Your task to perform on an android device: Open internet settings Image 0: 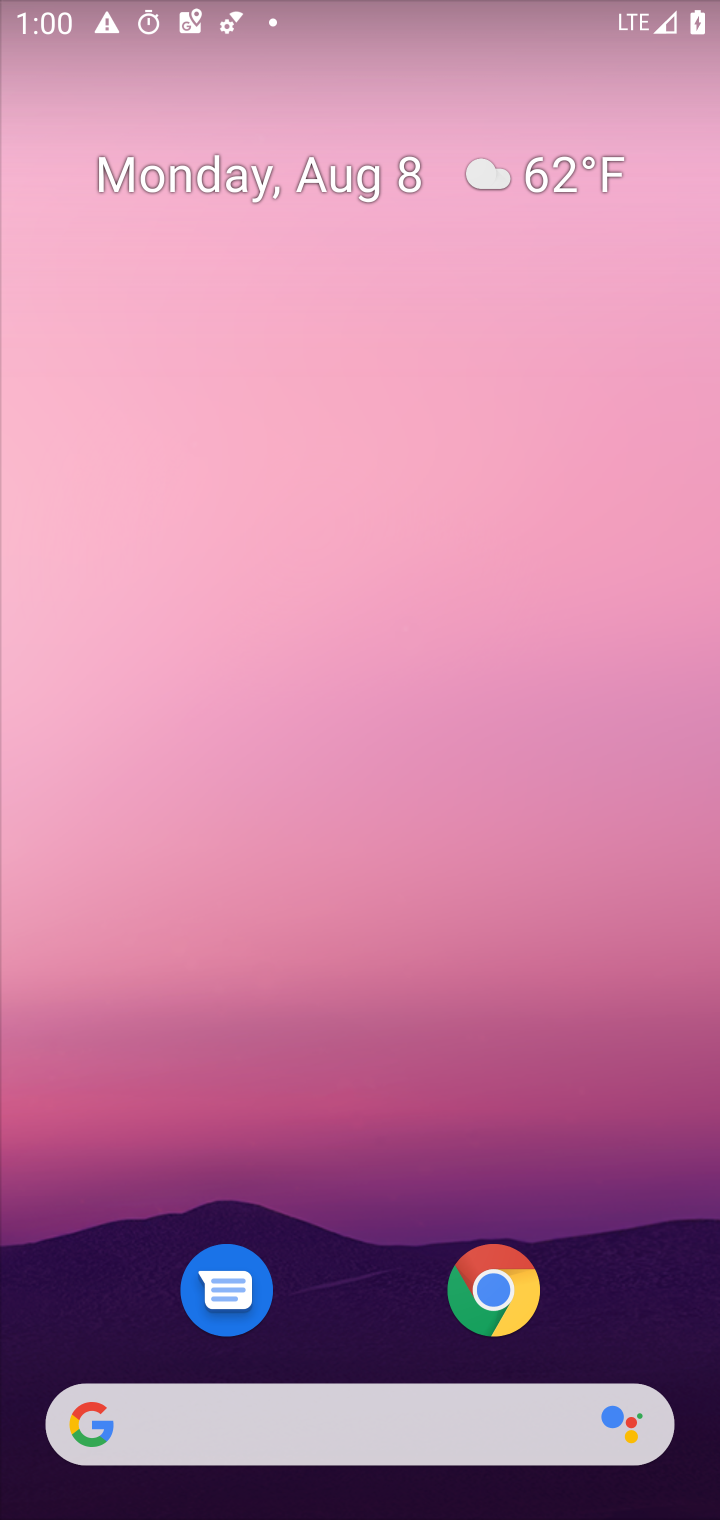
Step 0: drag from (332, 1312) to (375, 740)
Your task to perform on an android device: Open internet settings Image 1: 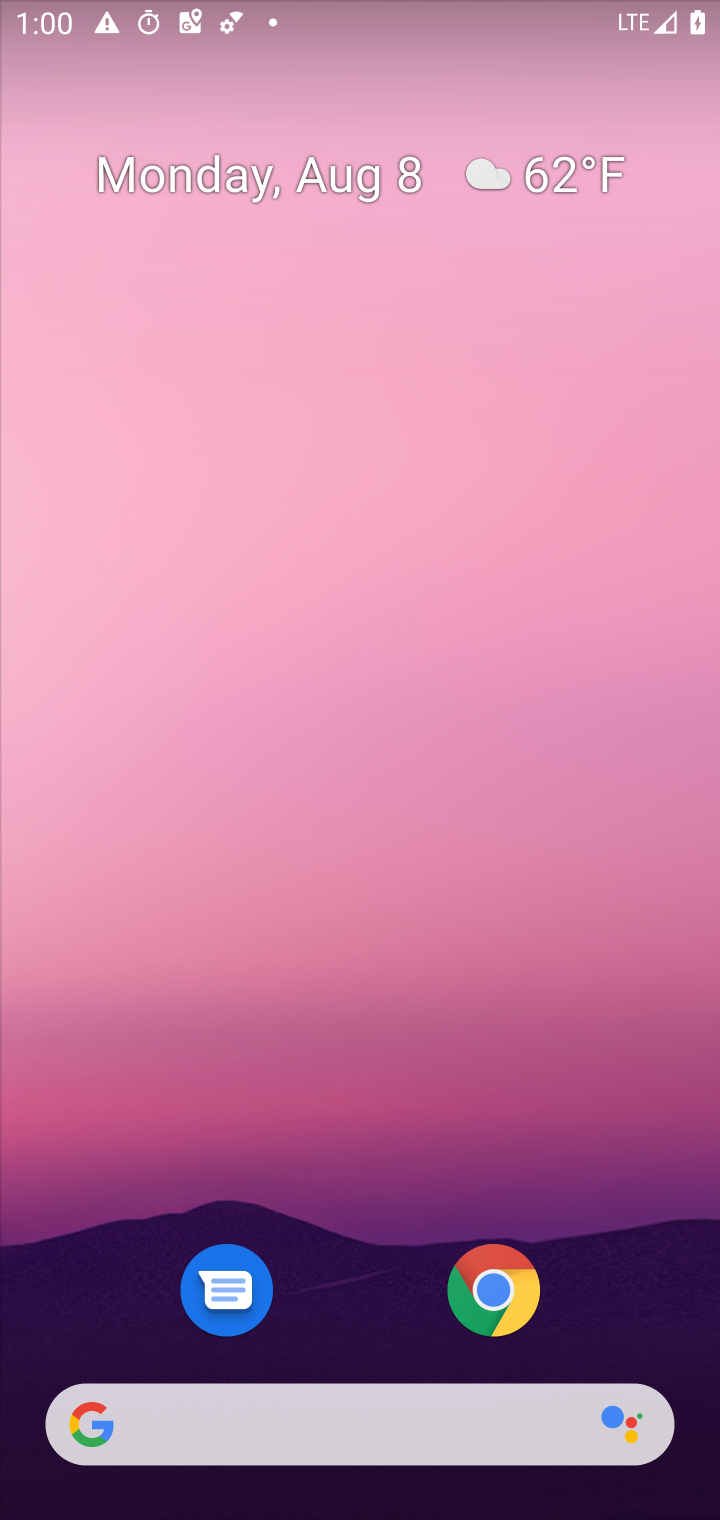
Step 1: drag from (335, 1358) to (391, 581)
Your task to perform on an android device: Open internet settings Image 2: 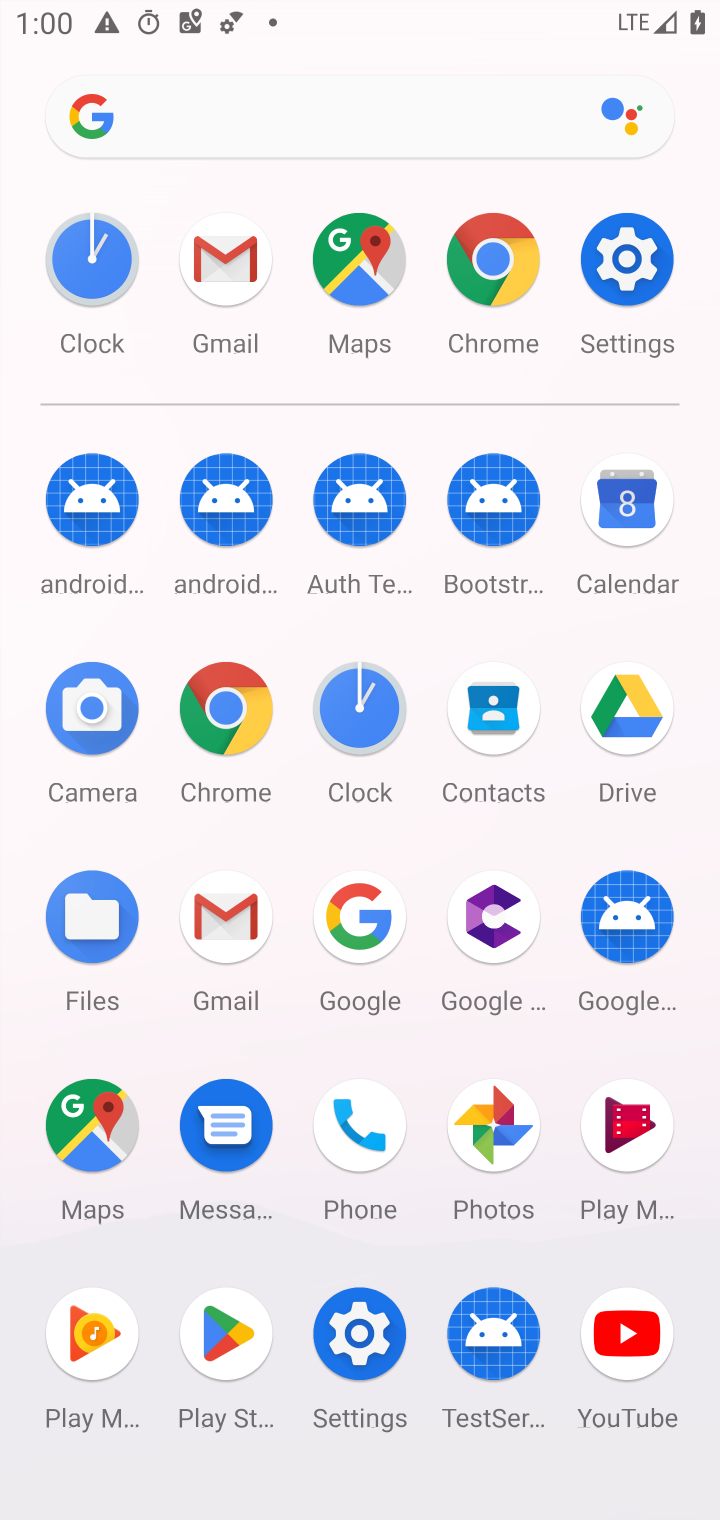
Step 2: click (353, 1342)
Your task to perform on an android device: Open internet settings Image 3: 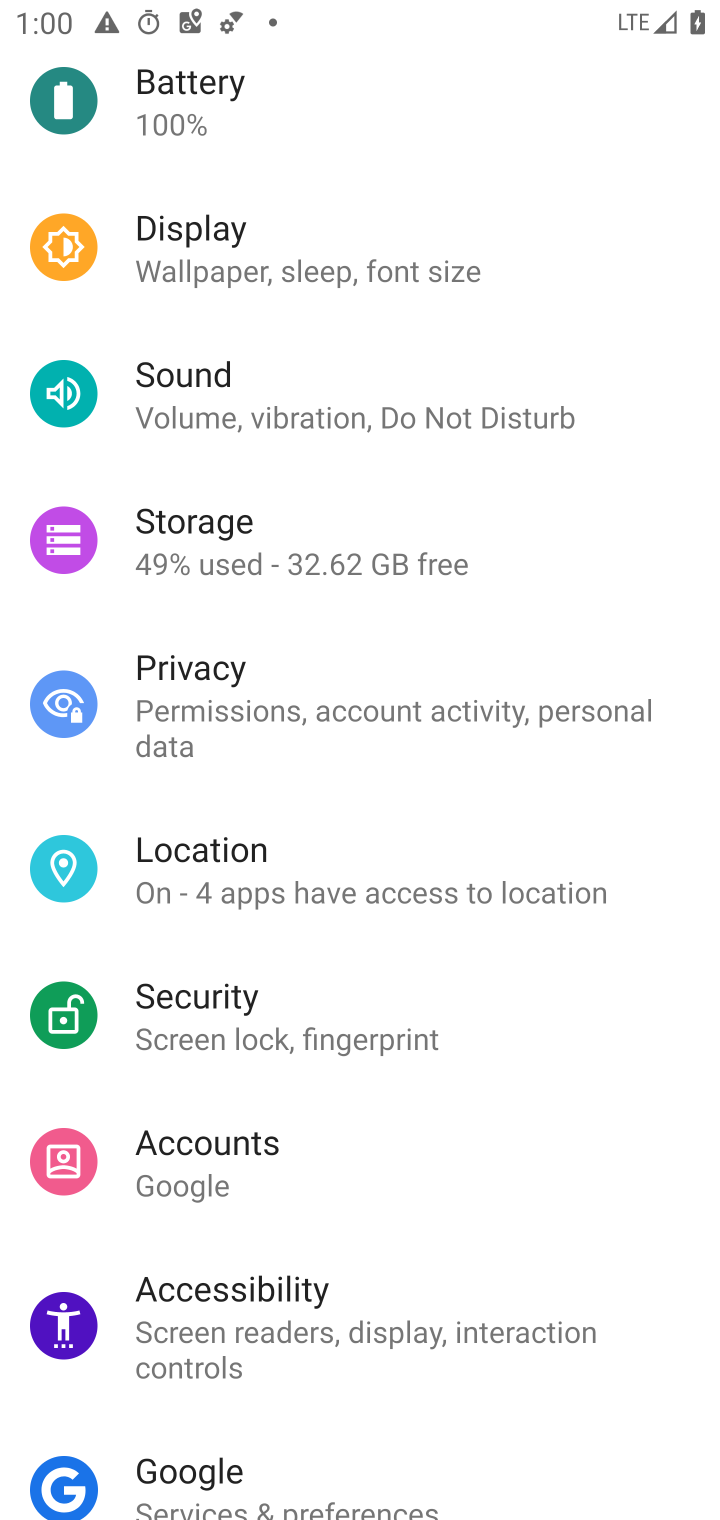
Step 3: drag from (327, 360) to (329, 625)
Your task to perform on an android device: Open internet settings Image 4: 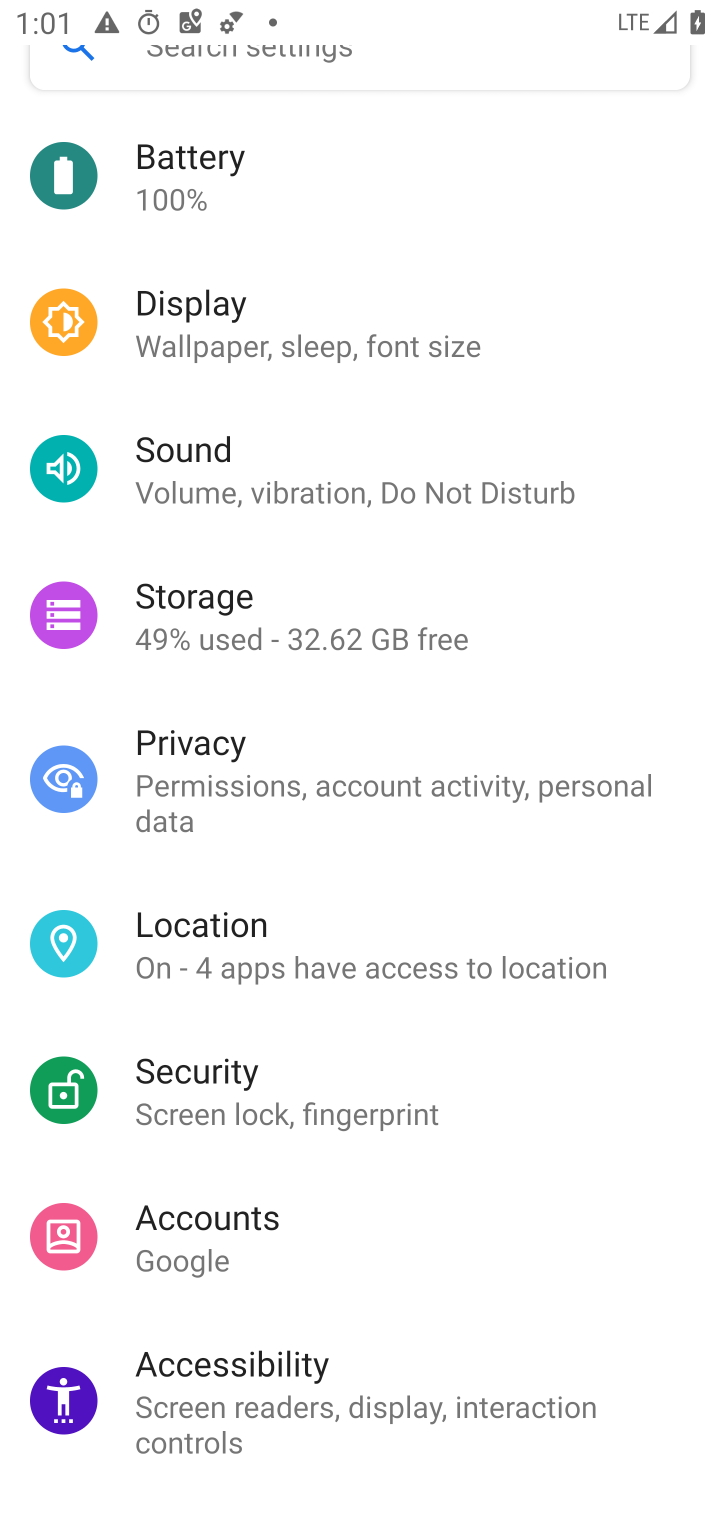
Step 4: drag from (298, 485) to (307, 842)
Your task to perform on an android device: Open internet settings Image 5: 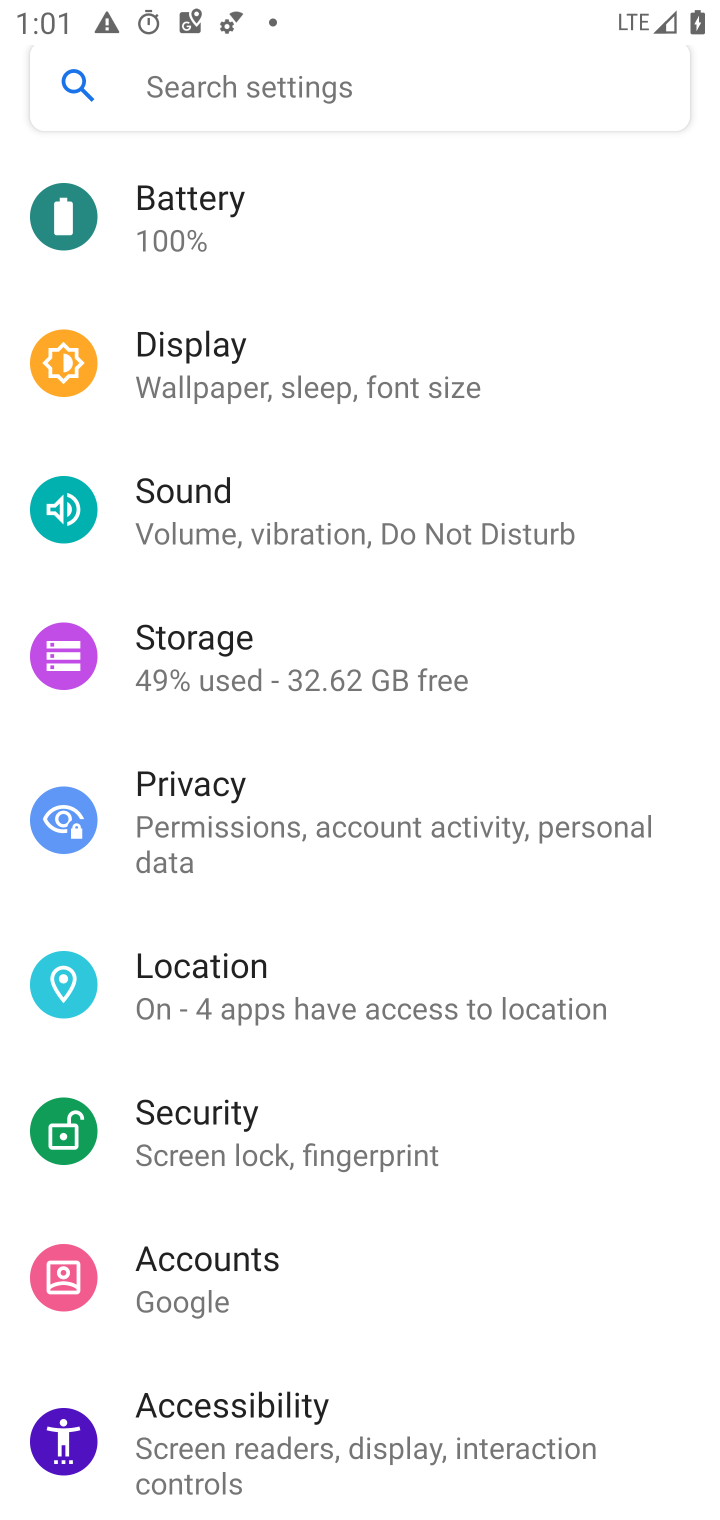
Step 5: drag from (307, 501) to (315, 809)
Your task to perform on an android device: Open internet settings Image 6: 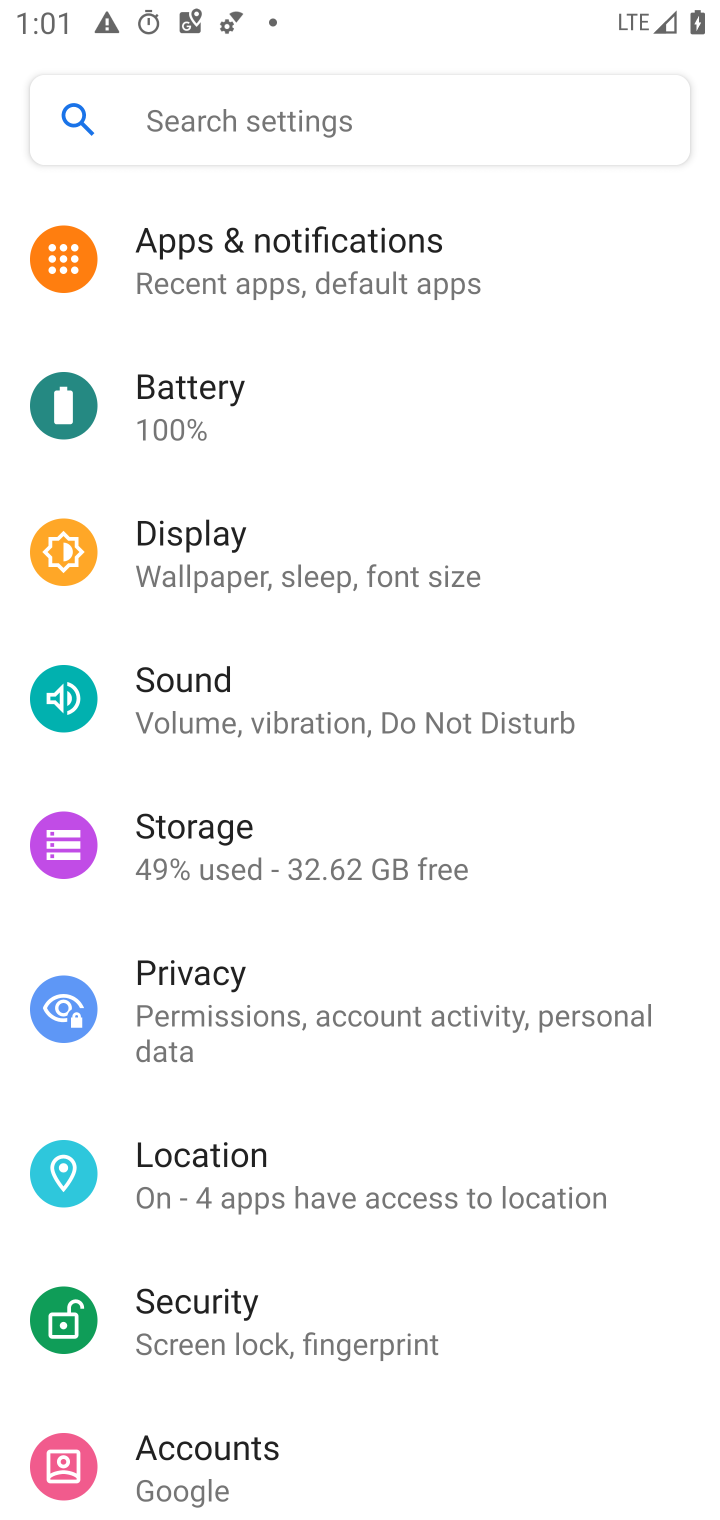
Step 6: drag from (305, 326) to (297, 677)
Your task to perform on an android device: Open internet settings Image 7: 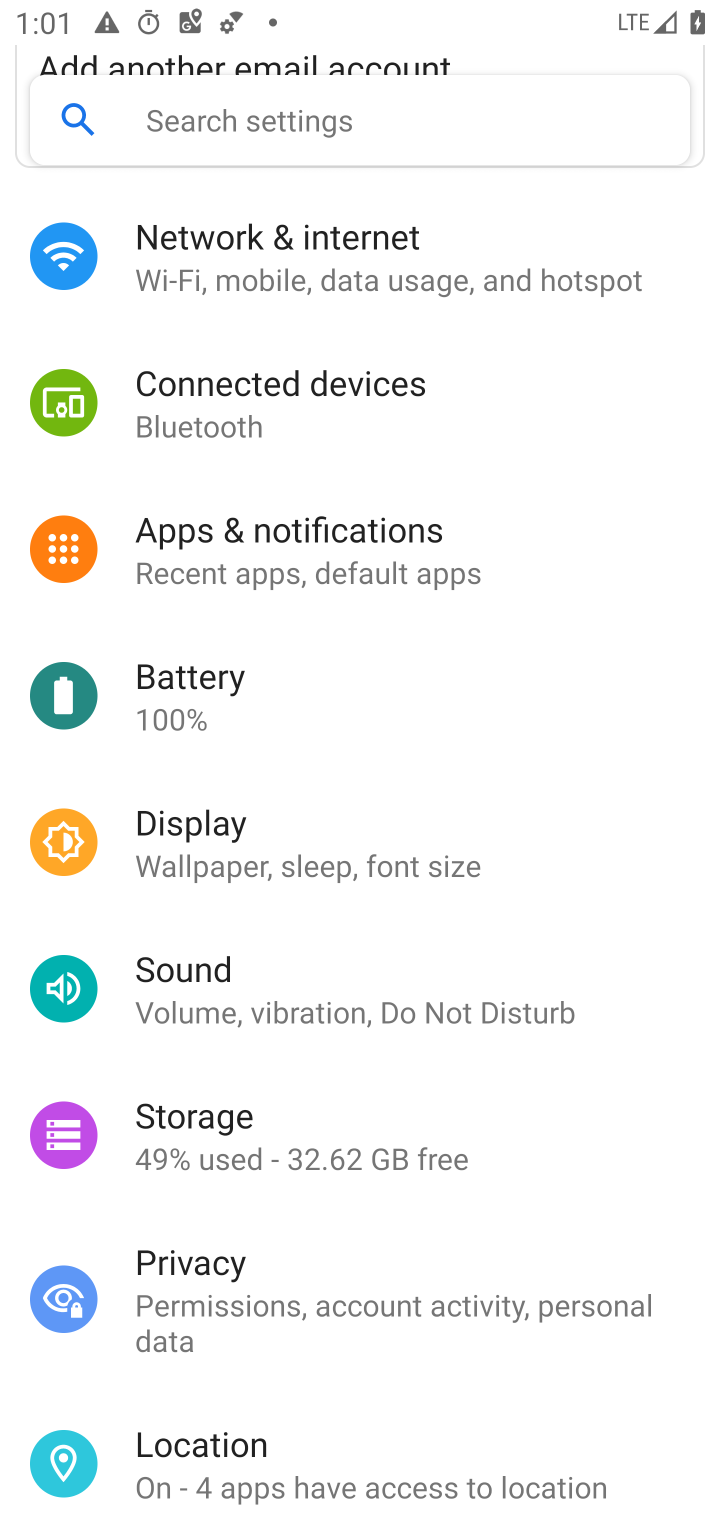
Step 7: click (243, 251)
Your task to perform on an android device: Open internet settings Image 8: 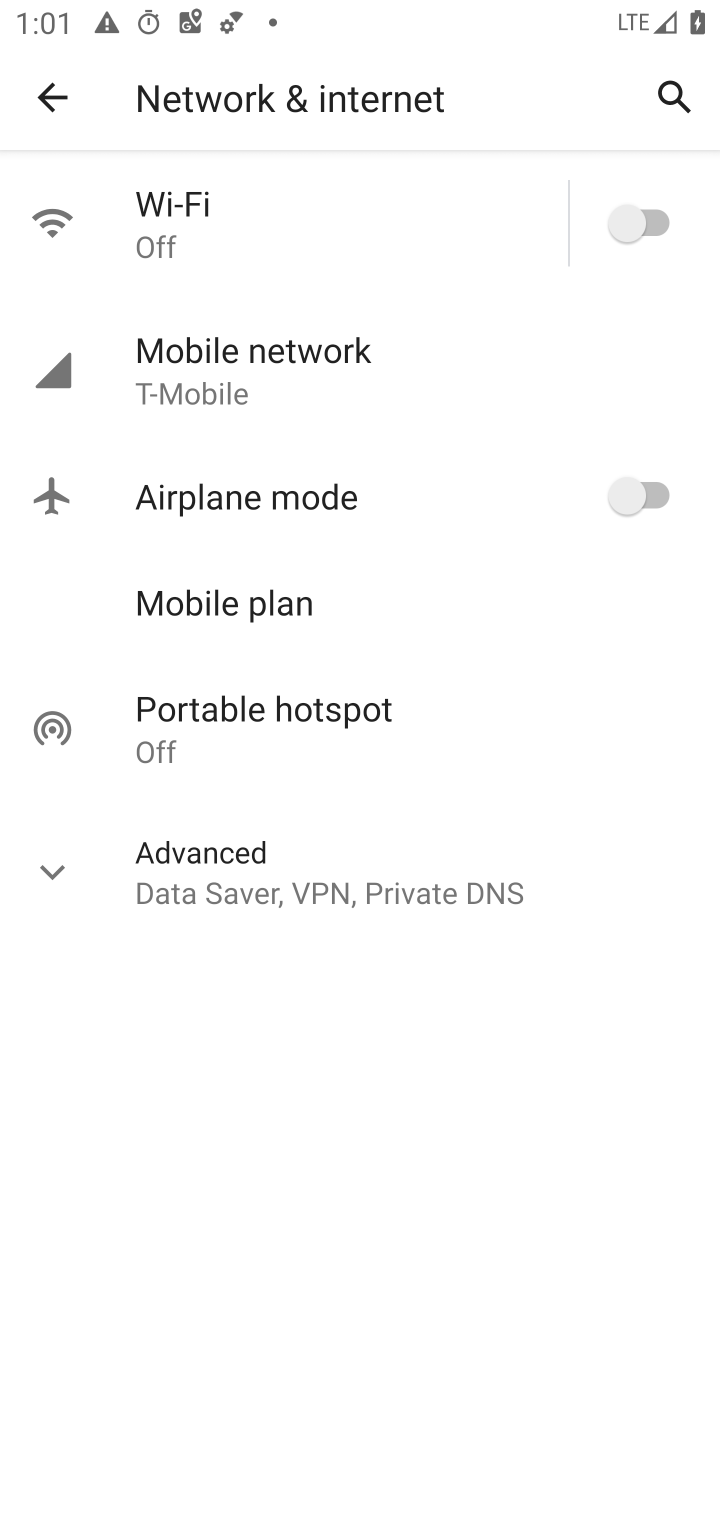
Step 8: task complete